Your task to perform on an android device: turn on airplane mode Image 0: 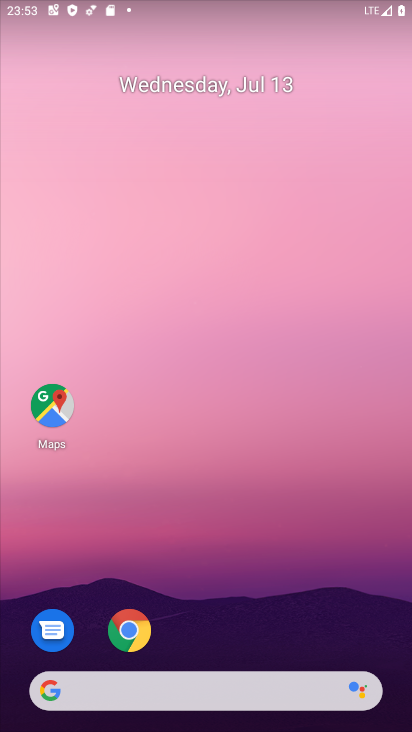
Step 0: drag from (356, 637) to (373, 60)
Your task to perform on an android device: turn on airplane mode Image 1: 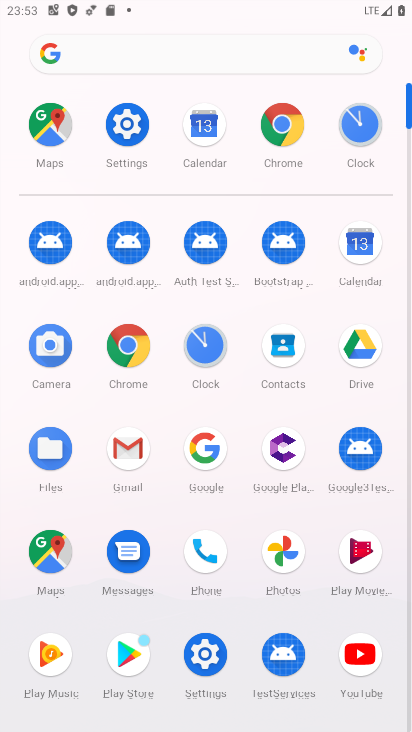
Step 1: click (210, 659)
Your task to perform on an android device: turn on airplane mode Image 2: 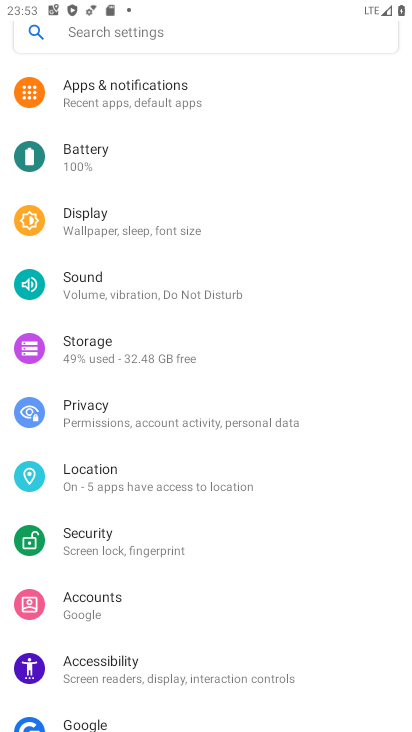
Step 2: drag from (321, 627) to (321, 521)
Your task to perform on an android device: turn on airplane mode Image 3: 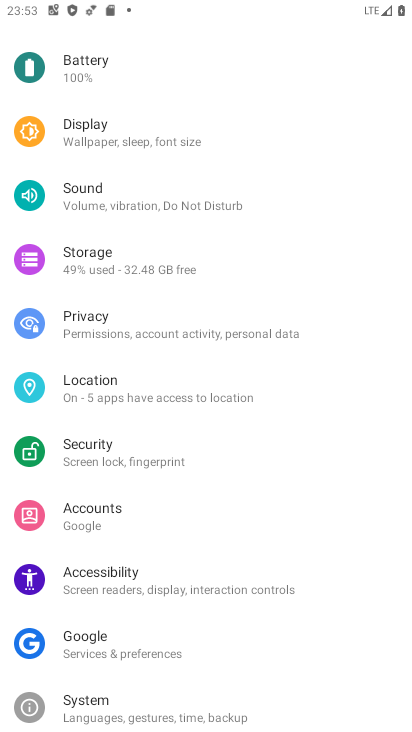
Step 3: drag from (337, 617) to (338, 526)
Your task to perform on an android device: turn on airplane mode Image 4: 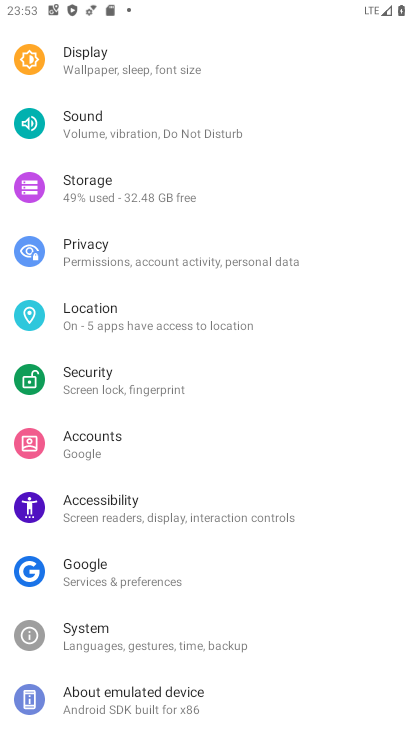
Step 4: drag from (344, 614) to (347, 489)
Your task to perform on an android device: turn on airplane mode Image 5: 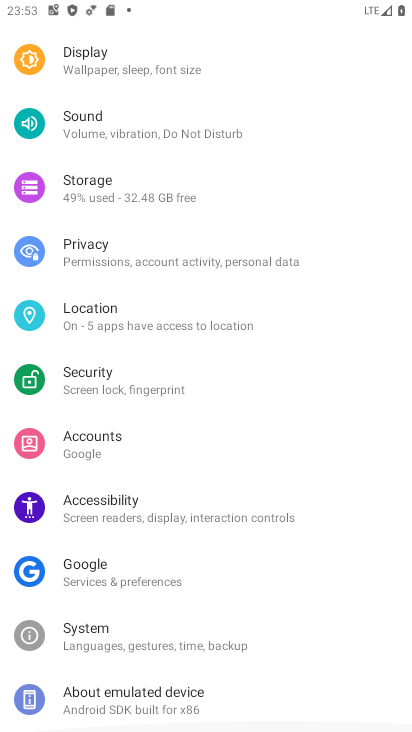
Step 5: drag from (350, 390) to (350, 503)
Your task to perform on an android device: turn on airplane mode Image 6: 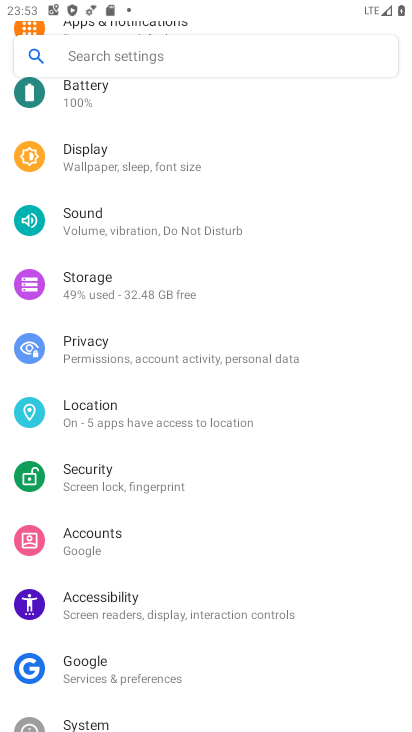
Step 6: drag from (362, 378) to (359, 494)
Your task to perform on an android device: turn on airplane mode Image 7: 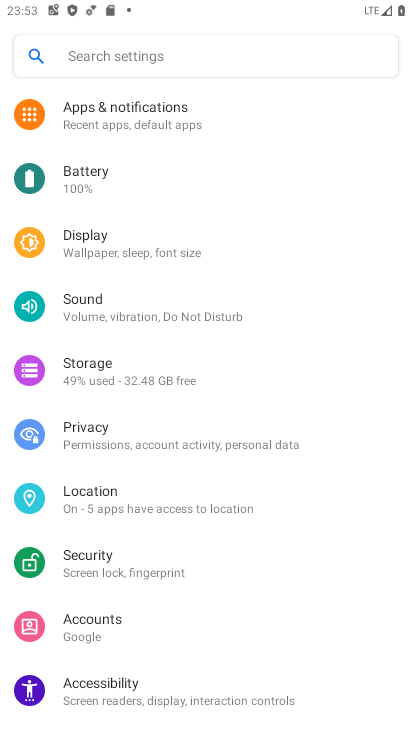
Step 7: drag from (363, 343) to (361, 438)
Your task to perform on an android device: turn on airplane mode Image 8: 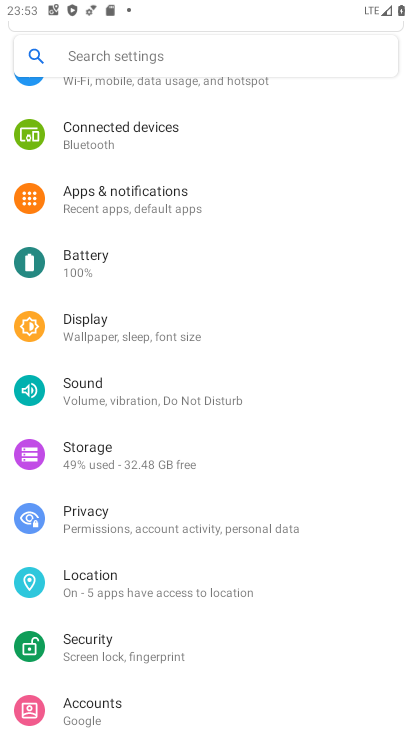
Step 8: drag from (363, 366) to (360, 446)
Your task to perform on an android device: turn on airplane mode Image 9: 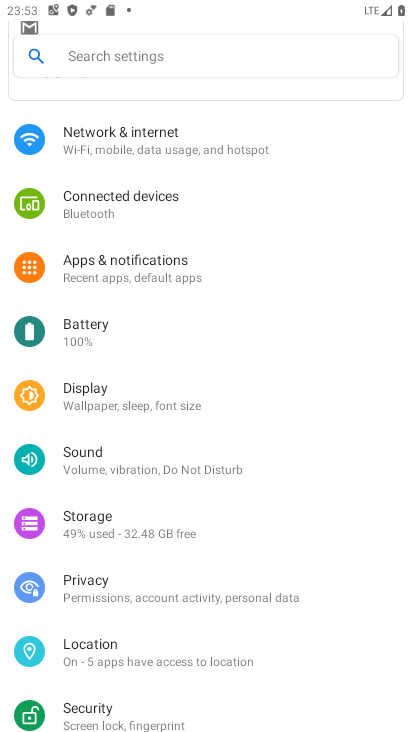
Step 9: drag from (361, 397) to (357, 461)
Your task to perform on an android device: turn on airplane mode Image 10: 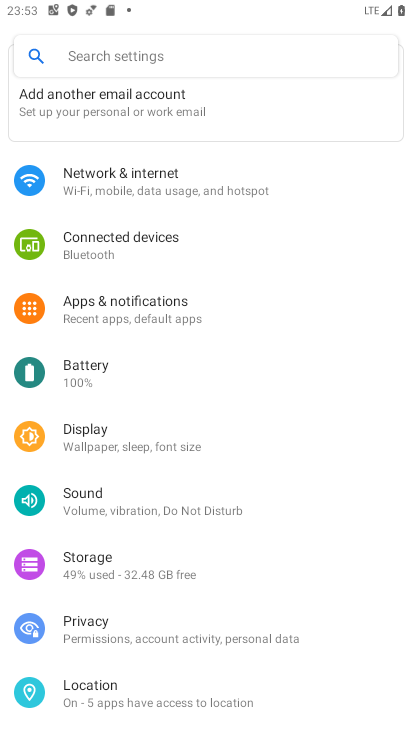
Step 10: drag from (363, 410) to (361, 465)
Your task to perform on an android device: turn on airplane mode Image 11: 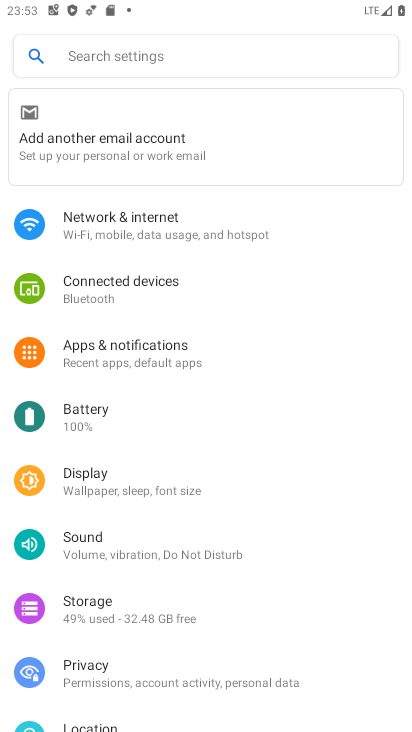
Step 11: drag from (367, 431) to (365, 525)
Your task to perform on an android device: turn on airplane mode Image 12: 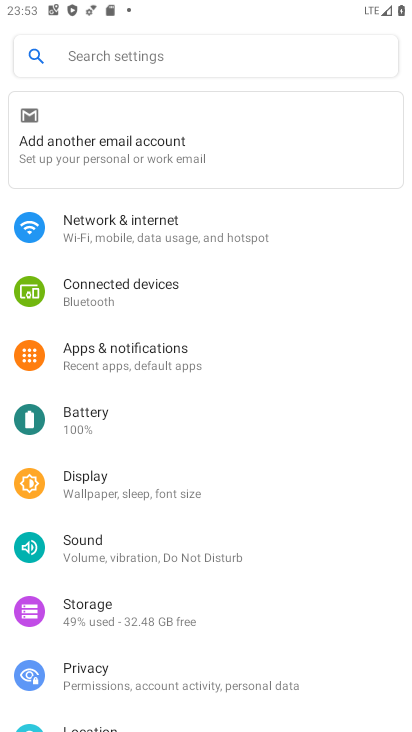
Step 12: click (291, 242)
Your task to perform on an android device: turn on airplane mode Image 13: 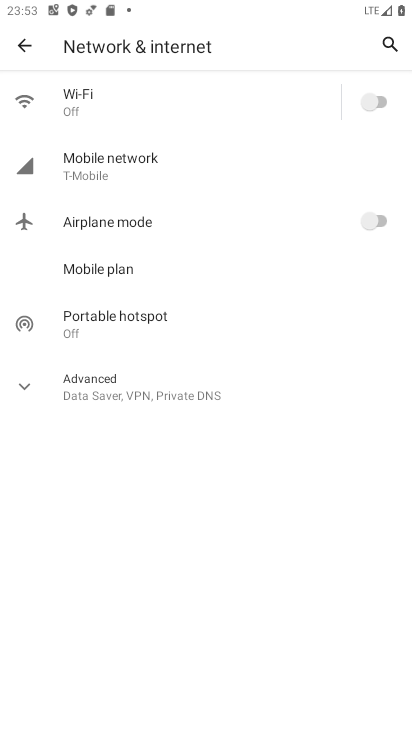
Step 13: click (378, 220)
Your task to perform on an android device: turn on airplane mode Image 14: 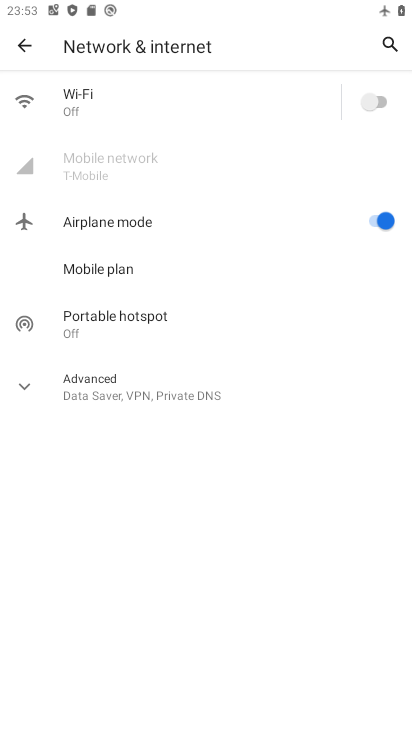
Step 14: task complete